Your task to perform on an android device: move an email to a new category in the gmail app Image 0: 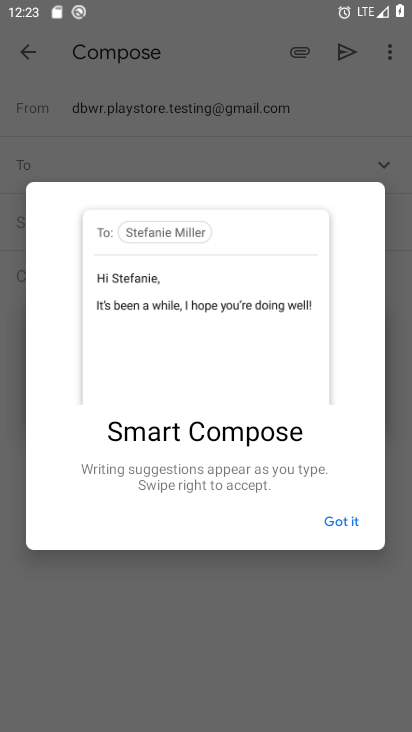
Step 0: press home button
Your task to perform on an android device: move an email to a new category in the gmail app Image 1: 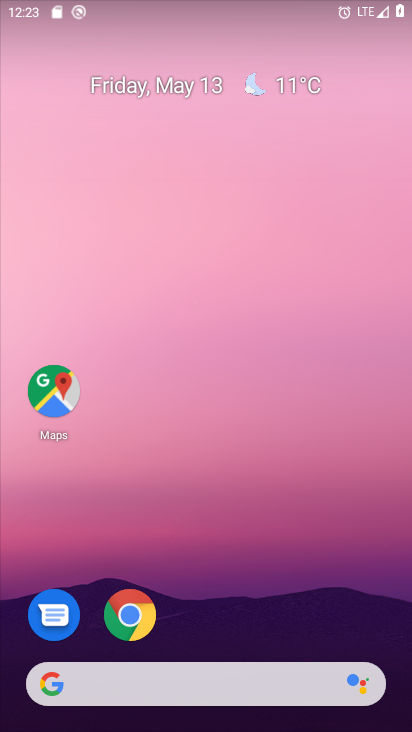
Step 1: drag from (241, 588) to (219, 24)
Your task to perform on an android device: move an email to a new category in the gmail app Image 2: 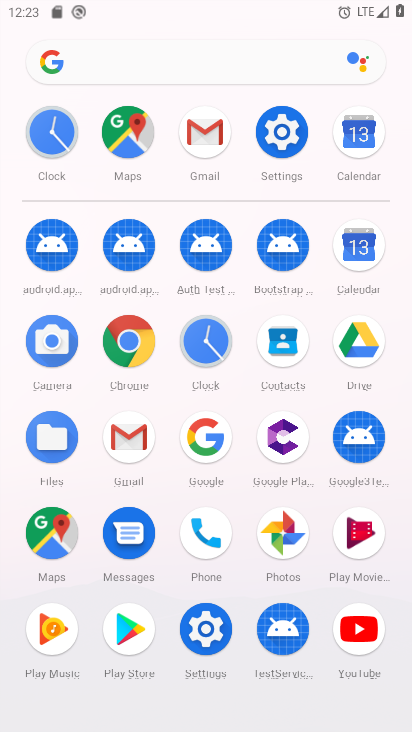
Step 2: click (208, 128)
Your task to perform on an android device: move an email to a new category in the gmail app Image 3: 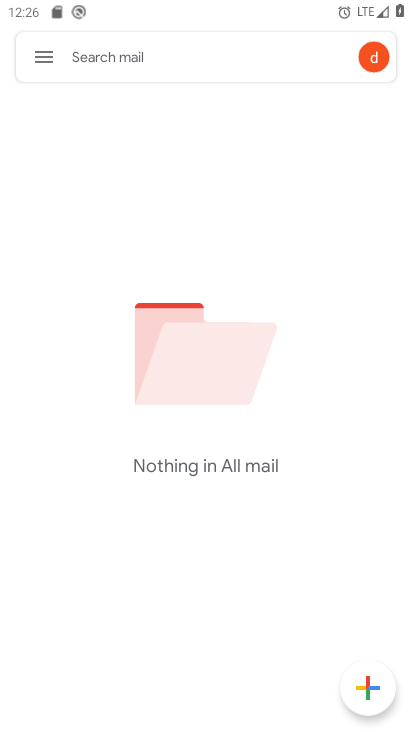
Step 3: task complete